Your task to perform on an android device: Go to Yahoo.com Image 0: 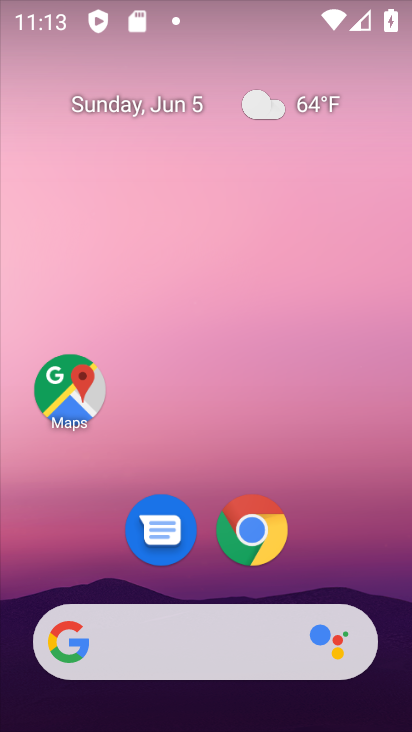
Step 0: drag from (353, 521) to (347, 8)
Your task to perform on an android device: Go to Yahoo.com Image 1: 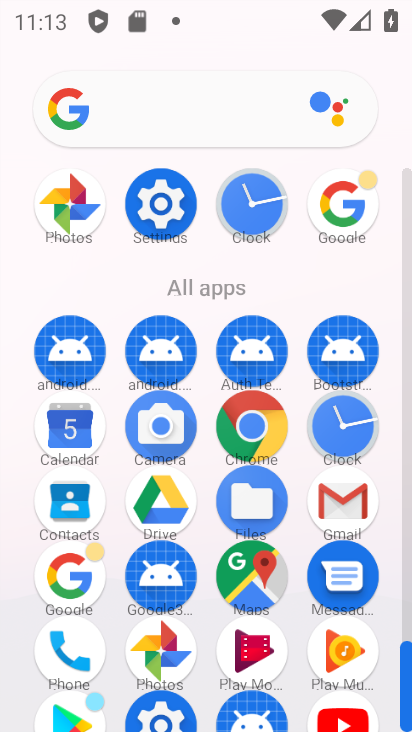
Step 1: click (263, 436)
Your task to perform on an android device: Go to Yahoo.com Image 2: 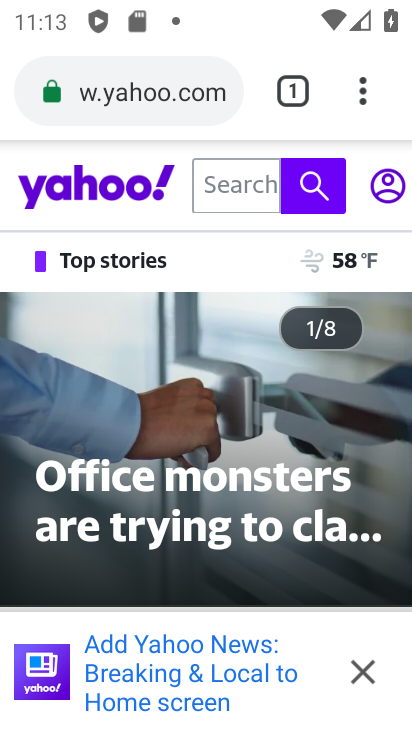
Step 2: task complete